Your task to perform on an android device: turn on bluetooth scan Image 0: 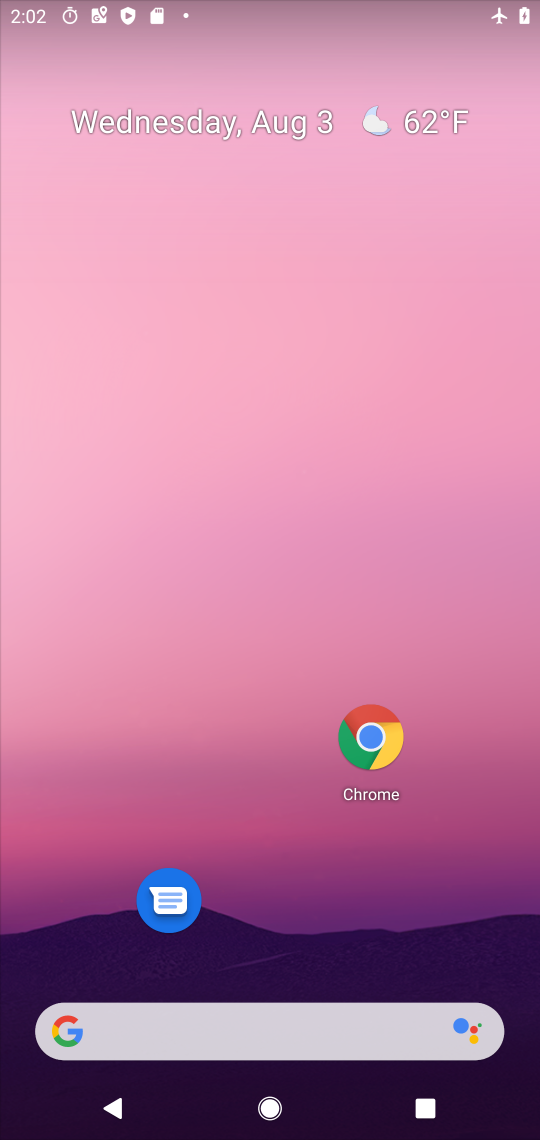
Step 0: drag from (230, 952) to (291, 189)
Your task to perform on an android device: turn on bluetooth scan Image 1: 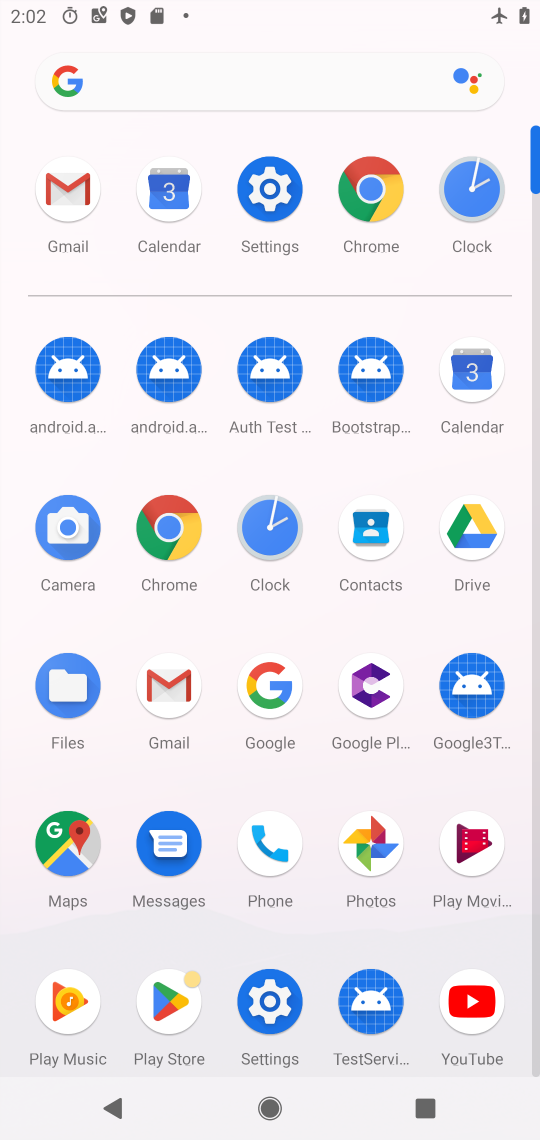
Step 1: click (268, 187)
Your task to perform on an android device: turn on bluetooth scan Image 2: 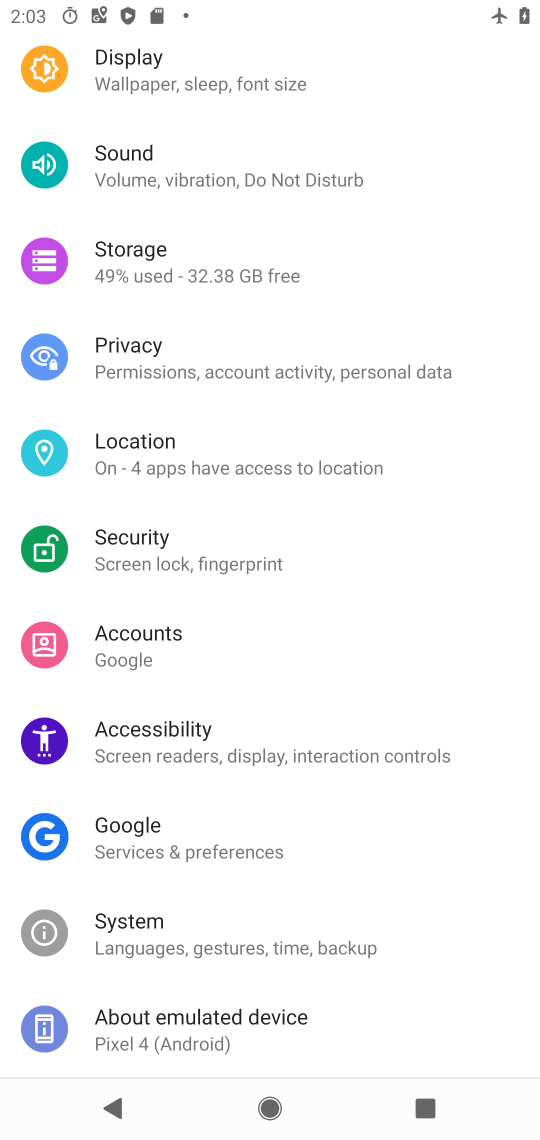
Step 2: click (164, 455)
Your task to perform on an android device: turn on bluetooth scan Image 3: 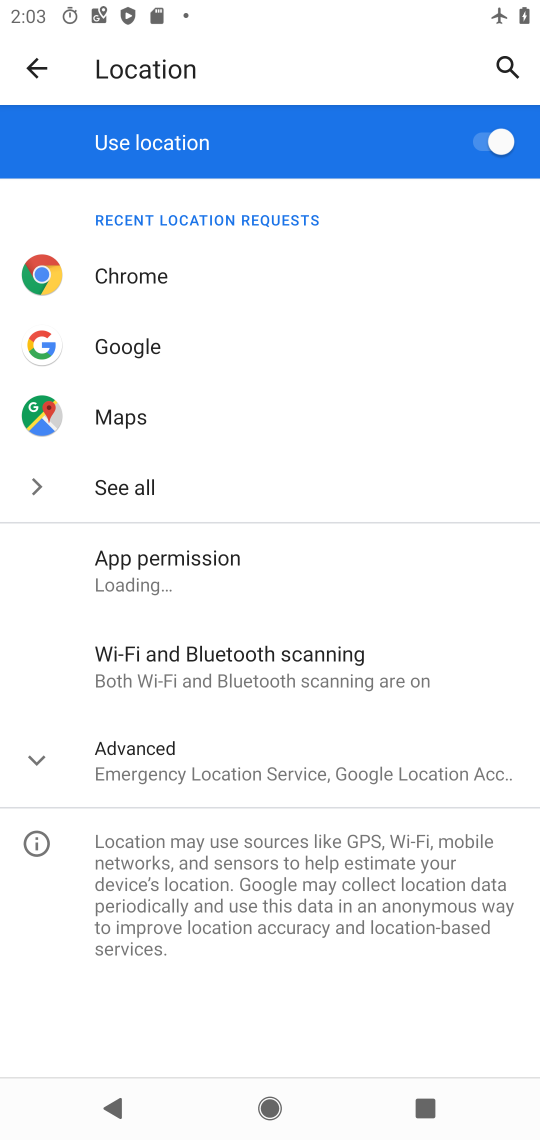
Step 3: click (239, 659)
Your task to perform on an android device: turn on bluetooth scan Image 4: 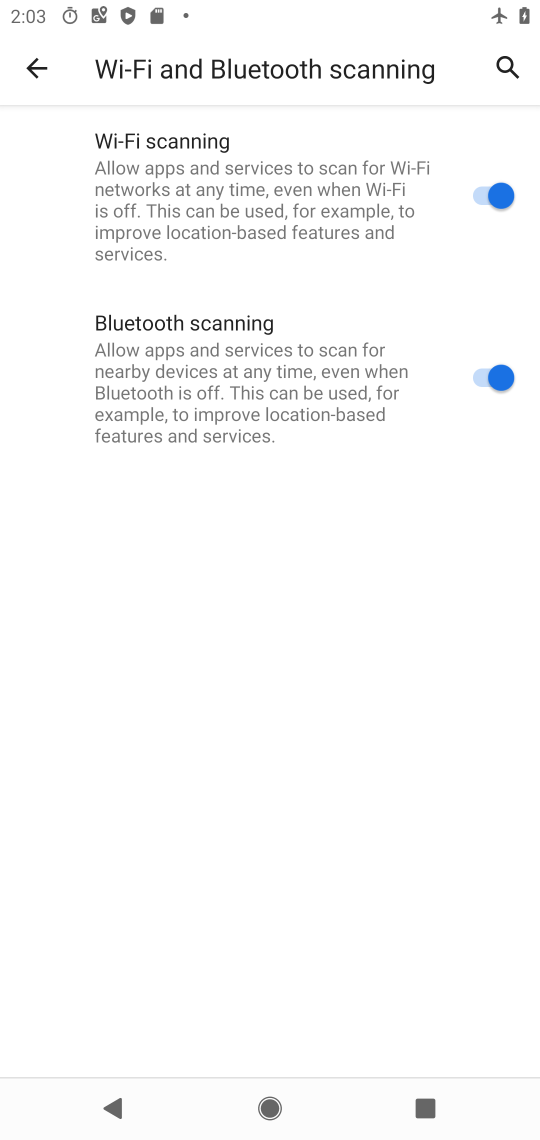
Step 4: task complete